Your task to perform on an android device: open wifi settings Image 0: 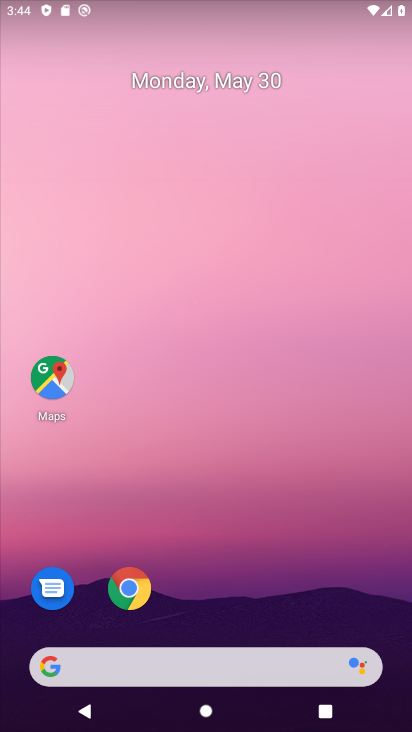
Step 0: drag from (385, 620) to (313, 25)
Your task to perform on an android device: open wifi settings Image 1: 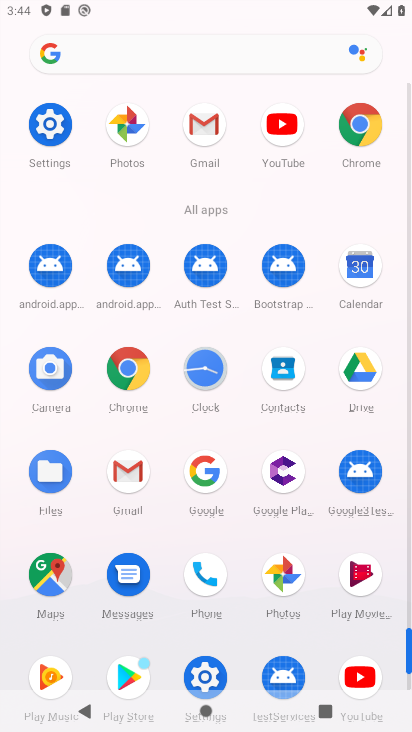
Step 1: click (206, 670)
Your task to perform on an android device: open wifi settings Image 2: 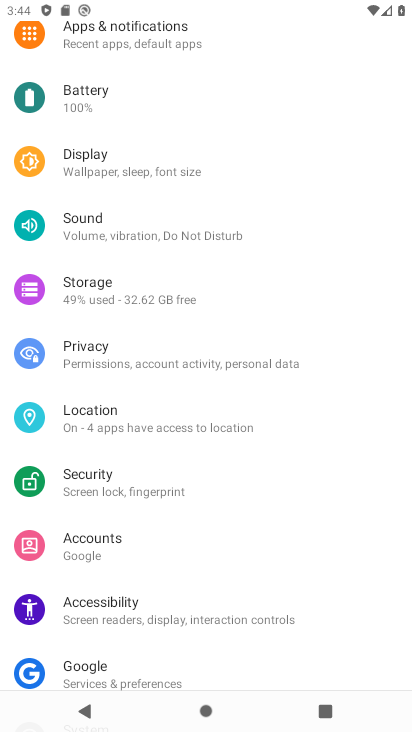
Step 2: drag from (283, 154) to (296, 460)
Your task to perform on an android device: open wifi settings Image 3: 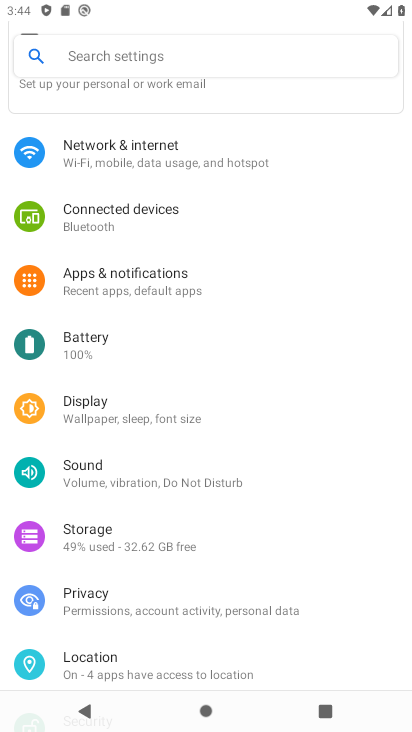
Step 3: click (99, 141)
Your task to perform on an android device: open wifi settings Image 4: 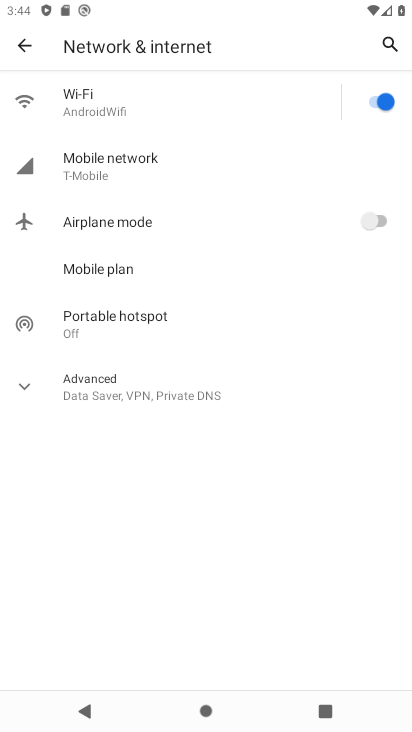
Step 4: click (82, 98)
Your task to perform on an android device: open wifi settings Image 5: 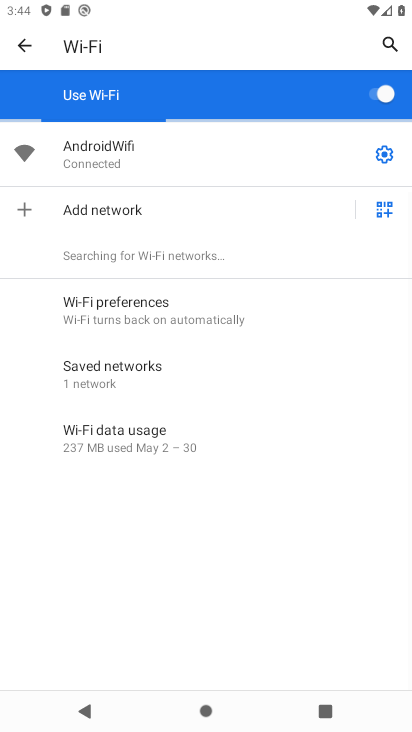
Step 5: click (386, 153)
Your task to perform on an android device: open wifi settings Image 6: 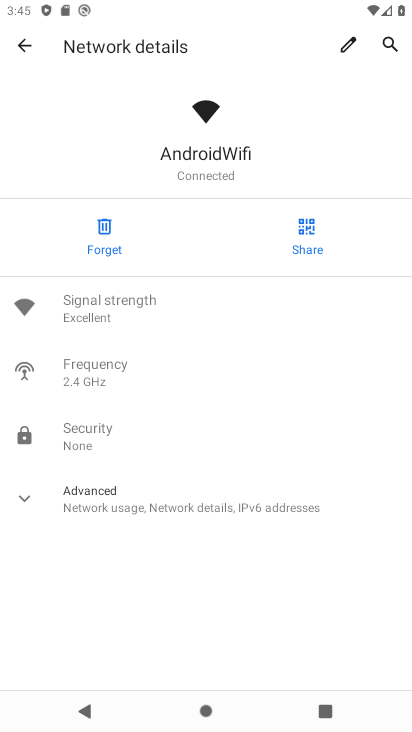
Step 6: click (26, 486)
Your task to perform on an android device: open wifi settings Image 7: 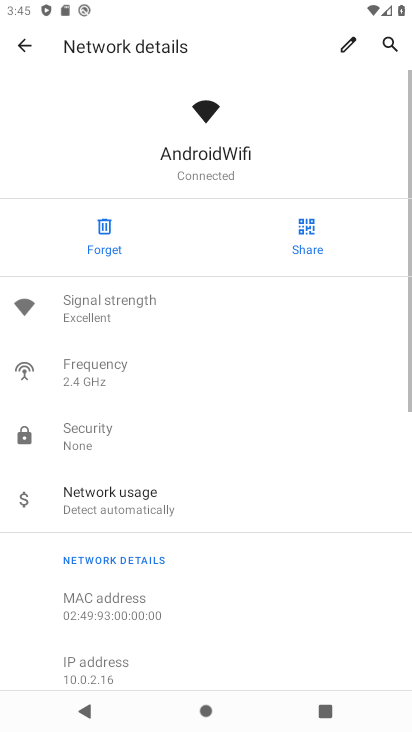
Step 7: task complete